Your task to perform on an android device: Open Google Maps Image 0: 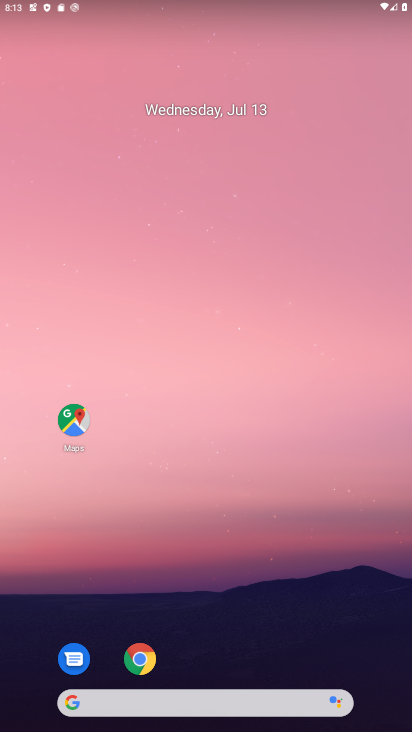
Step 0: click (62, 429)
Your task to perform on an android device: Open Google Maps Image 1: 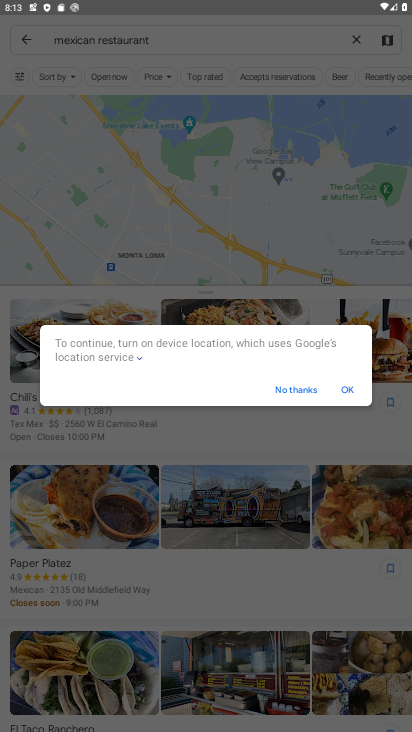
Step 1: click (343, 390)
Your task to perform on an android device: Open Google Maps Image 2: 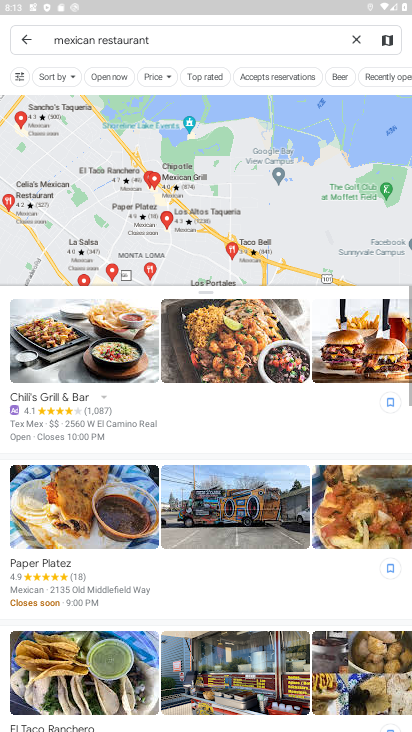
Step 2: task complete